Your task to perform on an android device: find which apps use the phone's location Image 0: 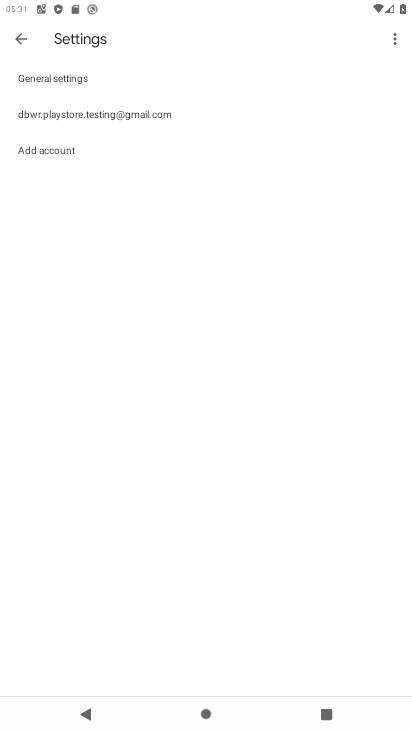
Step 0: press home button
Your task to perform on an android device: find which apps use the phone's location Image 1: 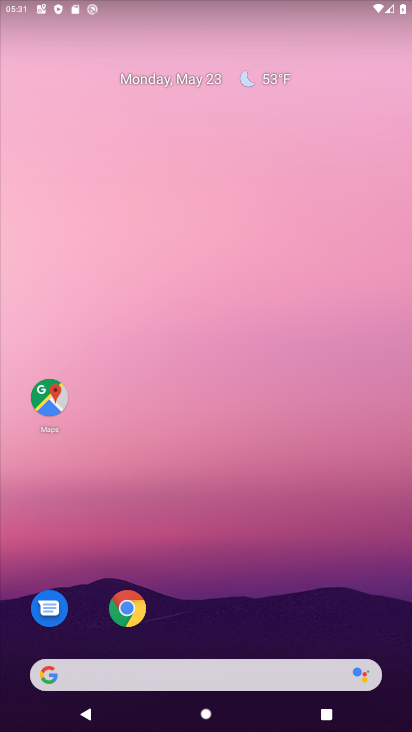
Step 1: drag from (193, 594) to (184, 0)
Your task to perform on an android device: find which apps use the phone's location Image 2: 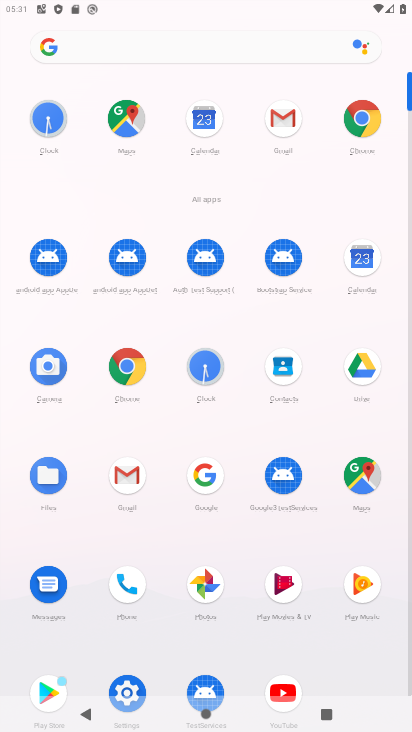
Step 2: click (136, 684)
Your task to perform on an android device: find which apps use the phone's location Image 3: 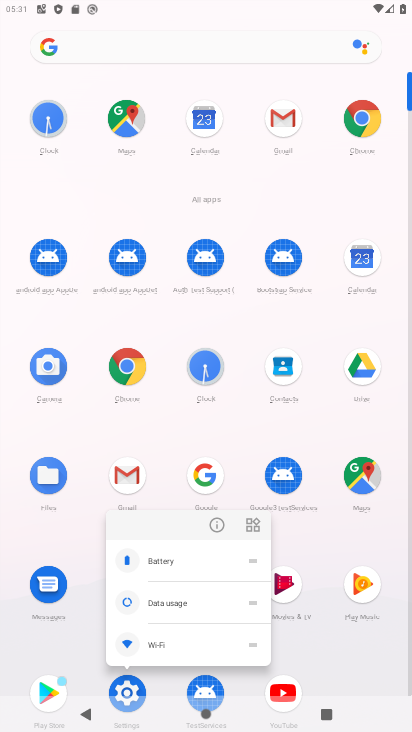
Step 3: click (123, 683)
Your task to perform on an android device: find which apps use the phone's location Image 4: 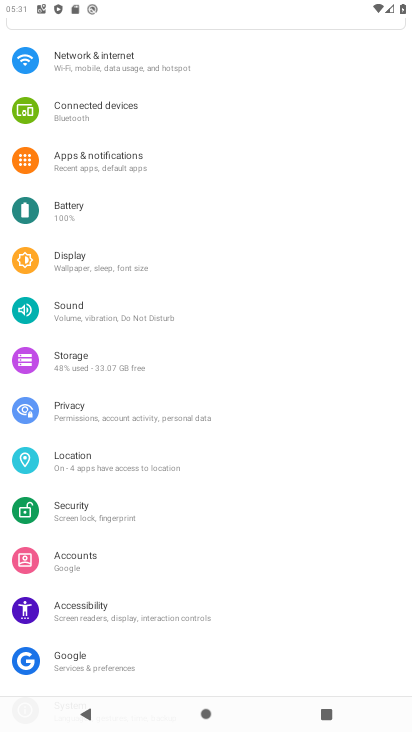
Step 4: click (120, 467)
Your task to perform on an android device: find which apps use the phone's location Image 5: 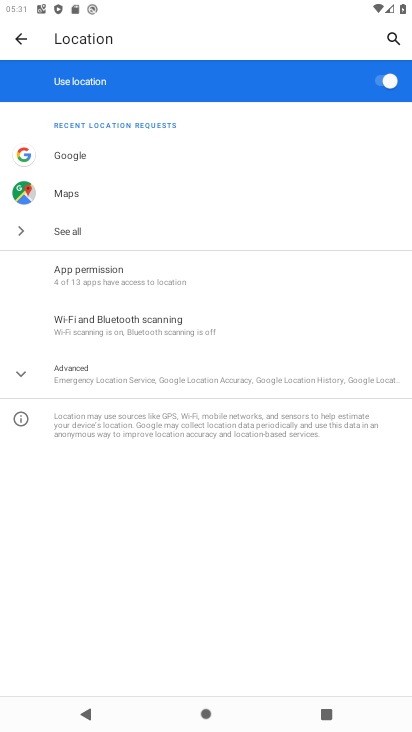
Step 5: click (115, 279)
Your task to perform on an android device: find which apps use the phone's location Image 6: 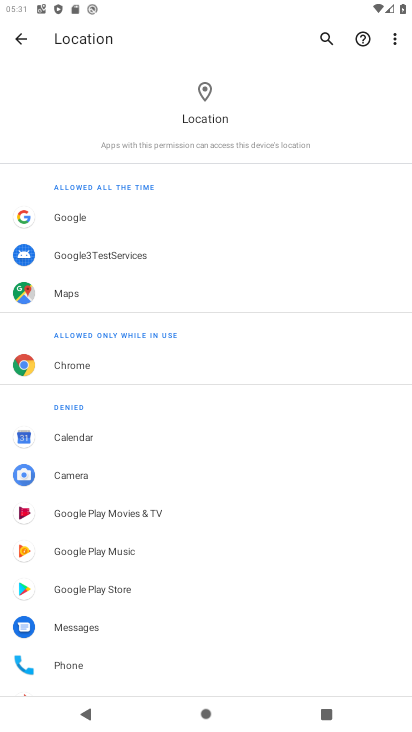
Step 6: task complete